Your task to perform on an android device: Go to Android settings Image 0: 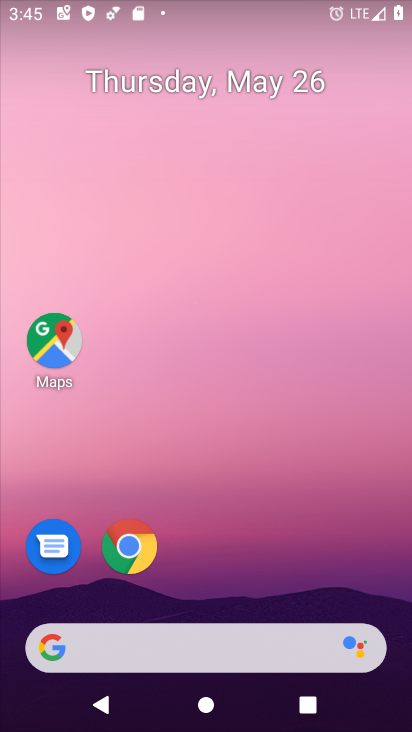
Step 0: drag from (264, 299) to (287, 27)
Your task to perform on an android device: Go to Android settings Image 1: 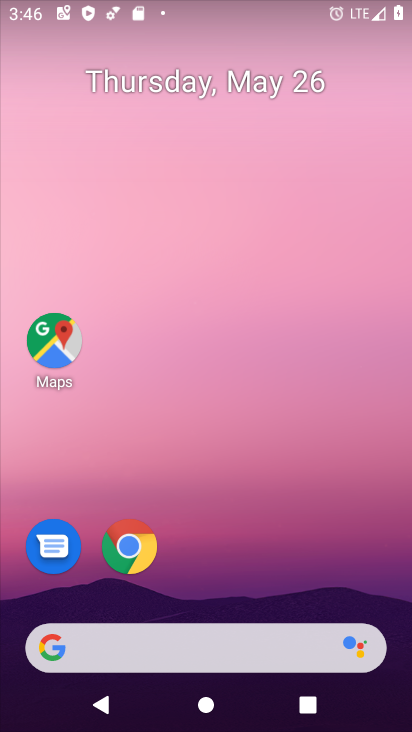
Step 1: drag from (236, 615) to (296, 18)
Your task to perform on an android device: Go to Android settings Image 2: 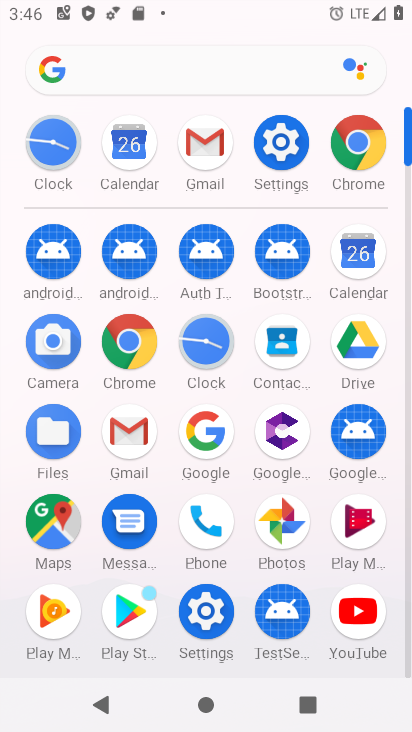
Step 2: click (282, 139)
Your task to perform on an android device: Go to Android settings Image 3: 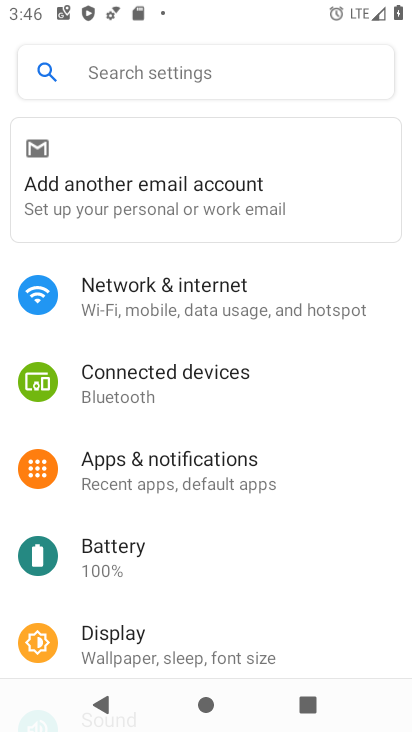
Step 3: drag from (196, 656) to (188, 43)
Your task to perform on an android device: Go to Android settings Image 4: 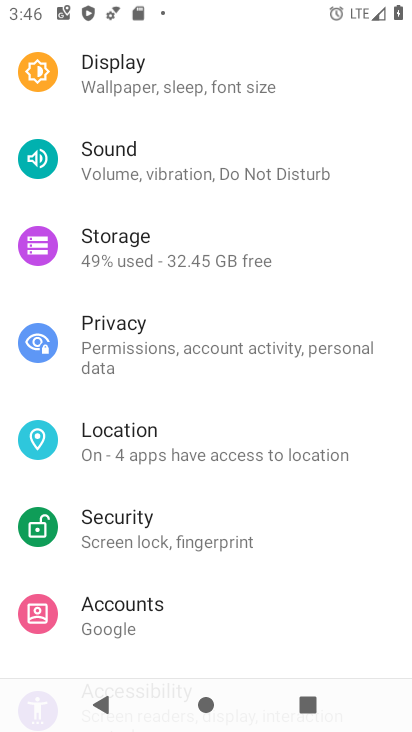
Step 4: drag from (158, 569) to (205, 84)
Your task to perform on an android device: Go to Android settings Image 5: 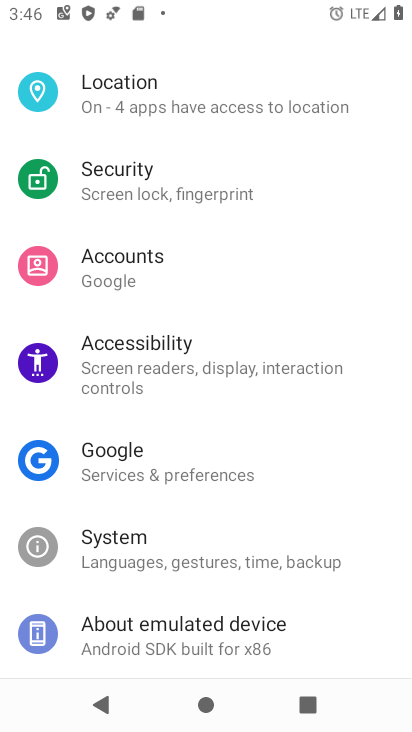
Step 5: drag from (147, 620) to (241, 125)
Your task to perform on an android device: Go to Android settings Image 6: 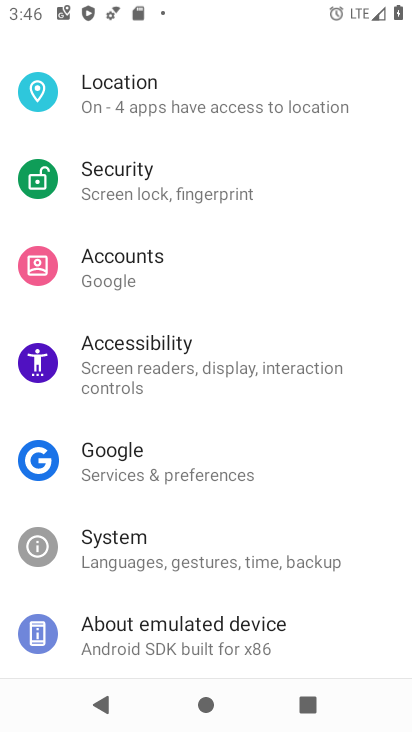
Step 6: click (206, 629)
Your task to perform on an android device: Go to Android settings Image 7: 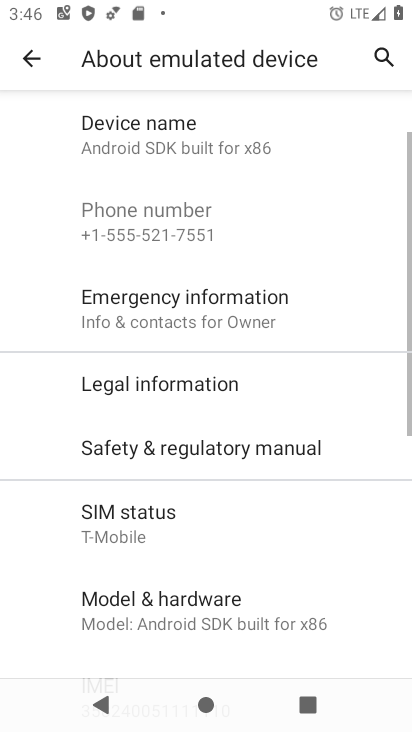
Step 7: task complete